Your task to perform on an android device: change the clock display to show seconds Image 0: 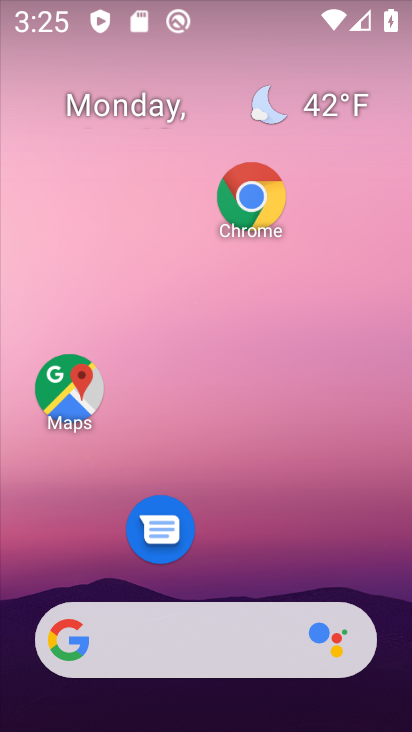
Step 0: drag from (273, 573) to (270, 18)
Your task to perform on an android device: change the clock display to show seconds Image 1: 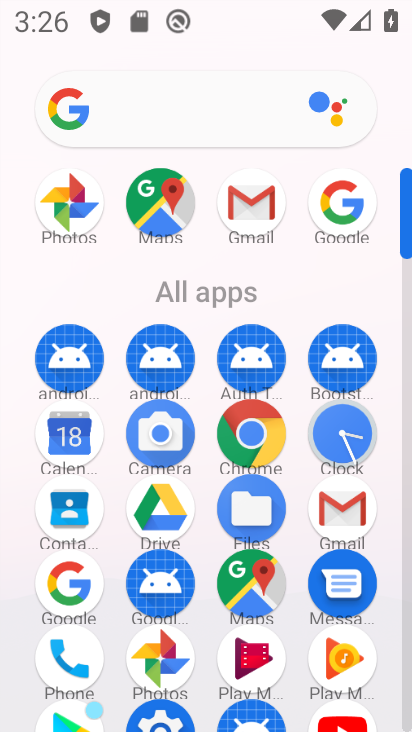
Step 1: click (322, 416)
Your task to perform on an android device: change the clock display to show seconds Image 2: 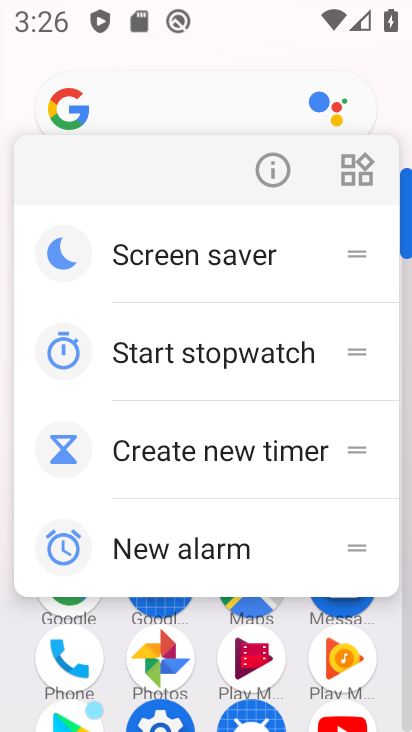
Step 2: click (226, 51)
Your task to perform on an android device: change the clock display to show seconds Image 3: 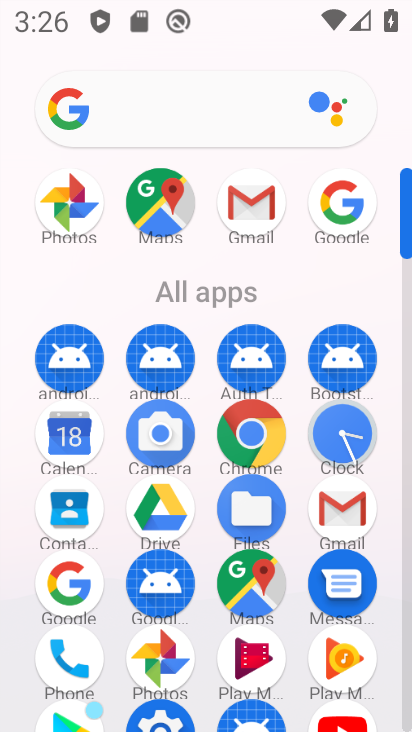
Step 3: click (346, 422)
Your task to perform on an android device: change the clock display to show seconds Image 4: 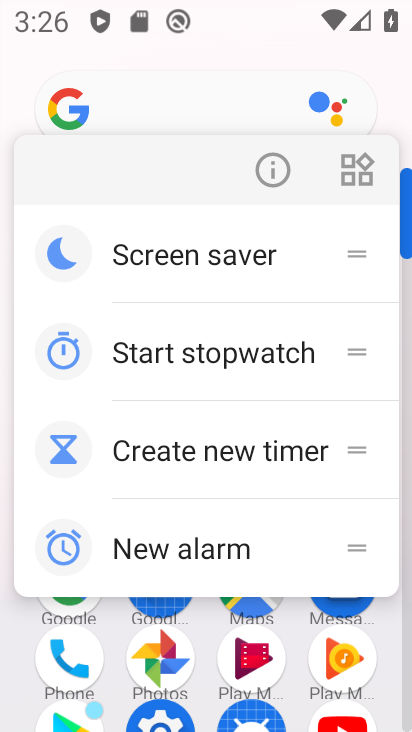
Step 4: click (187, 68)
Your task to perform on an android device: change the clock display to show seconds Image 5: 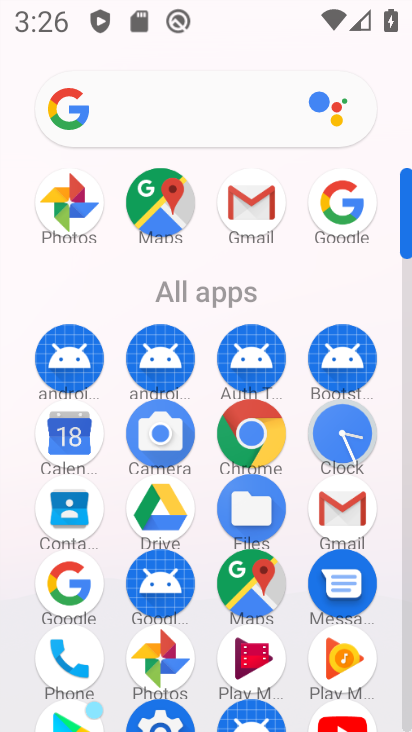
Step 5: click (331, 443)
Your task to perform on an android device: change the clock display to show seconds Image 6: 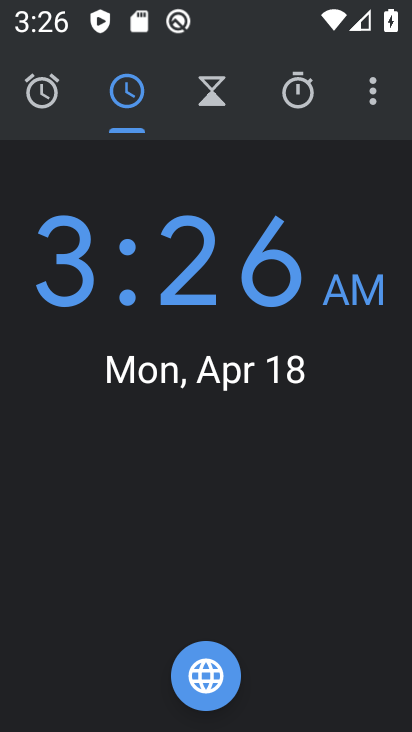
Step 6: click (380, 89)
Your task to perform on an android device: change the clock display to show seconds Image 7: 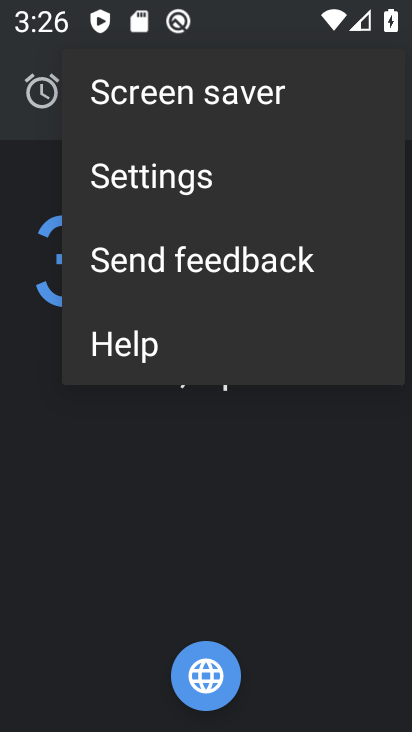
Step 7: click (176, 170)
Your task to perform on an android device: change the clock display to show seconds Image 8: 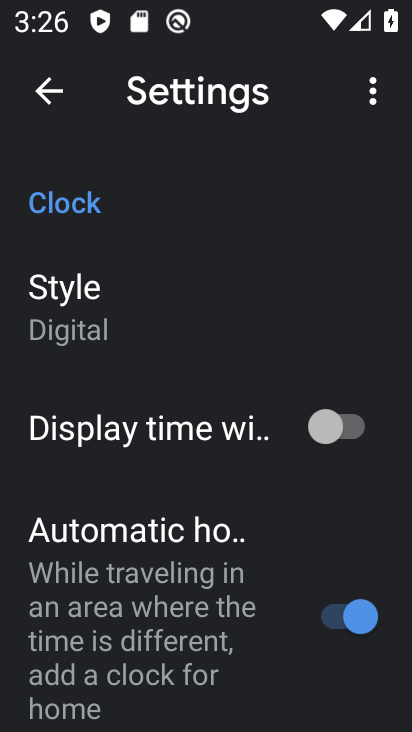
Step 8: click (344, 417)
Your task to perform on an android device: change the clock display to show seconds Image 9: 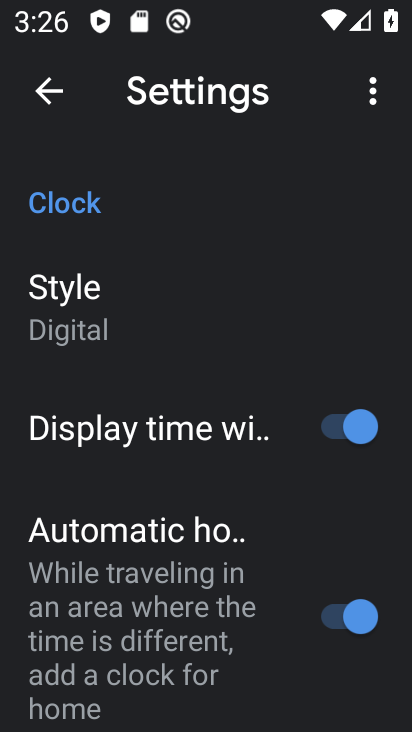
Step 9: task complete